Your task to perform on an android device: allow cookies in the chrome app Image 0: 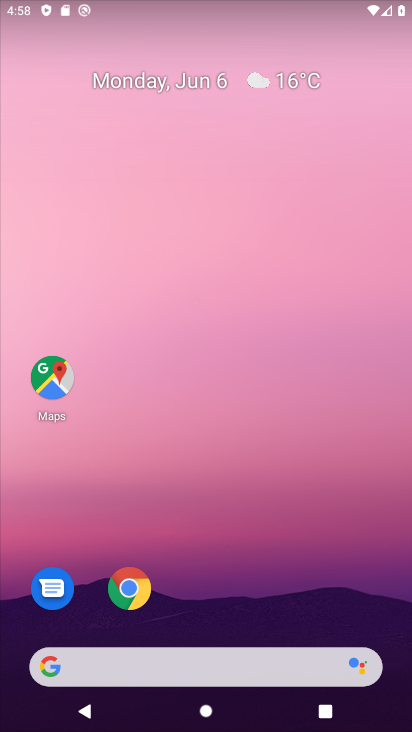
Step 0: click (136, 594)
Your task to perform on an android device: allow cookies in the chrome app Image 1: 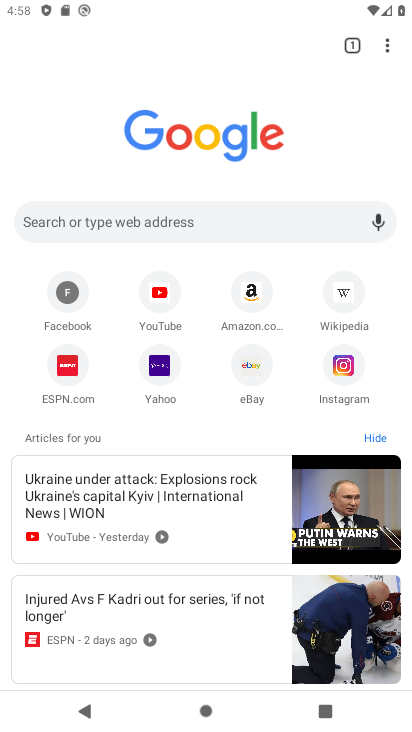
Step 1: click (393, 41)
Your task to perform on an android device: allow cookies in the chrome app Image 2: 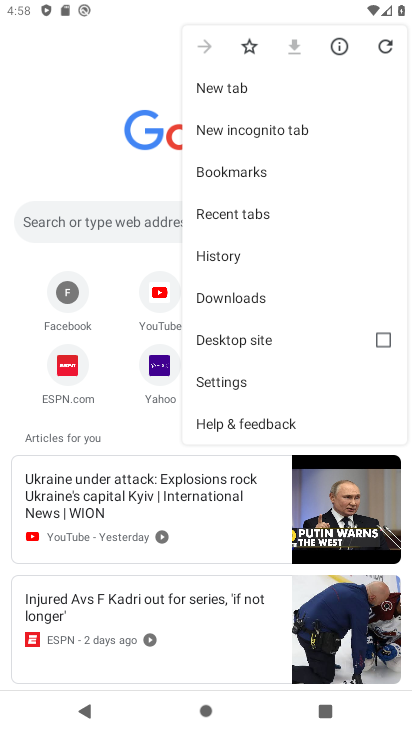
Step 2: click (258, 386)
Your task to perform on an android device: allow cookies in the chrome app Image 3: 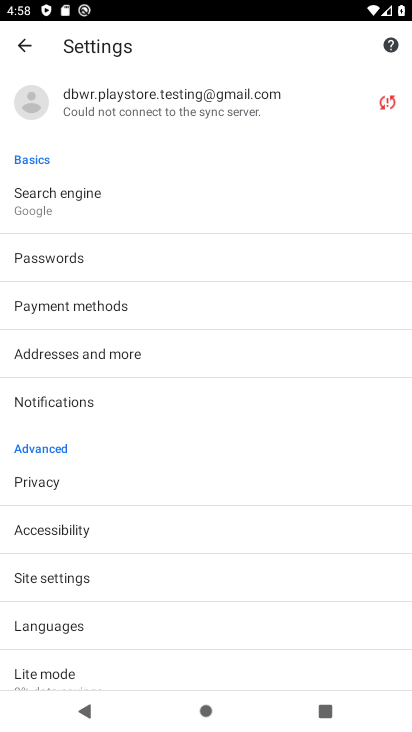
Step 3: click (164, 585)
Your task to perform on an android device: allow cookies in the chrome app Image 4: 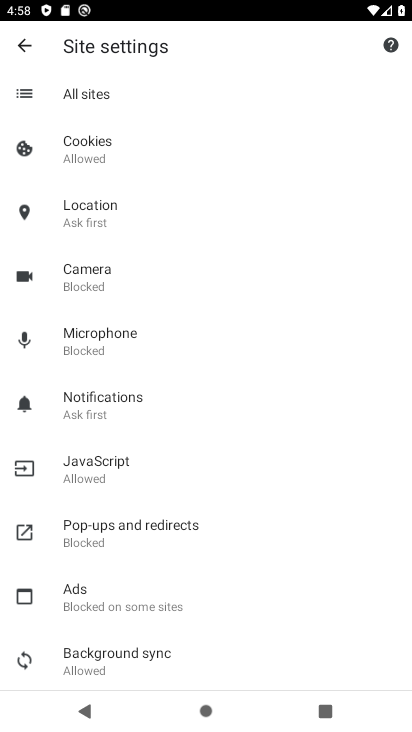
Step 4: click (303, 165)
Your task to perform on an android device: allow cookies in the chrome app Image 5: 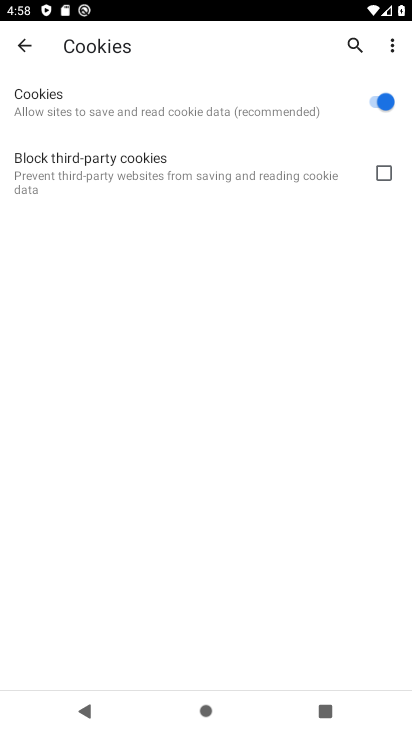
Step 5: task complete